Your task to perform on an android device: toggle wifi Image 0: 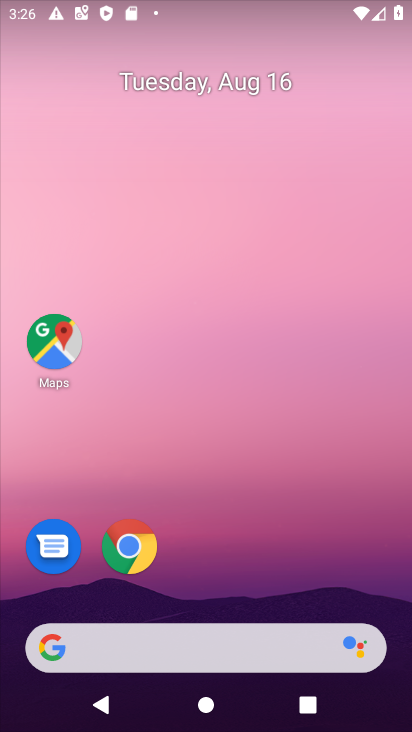
Step 0: press home button
Your task to perform on an android device: toggle wifi Image 1: 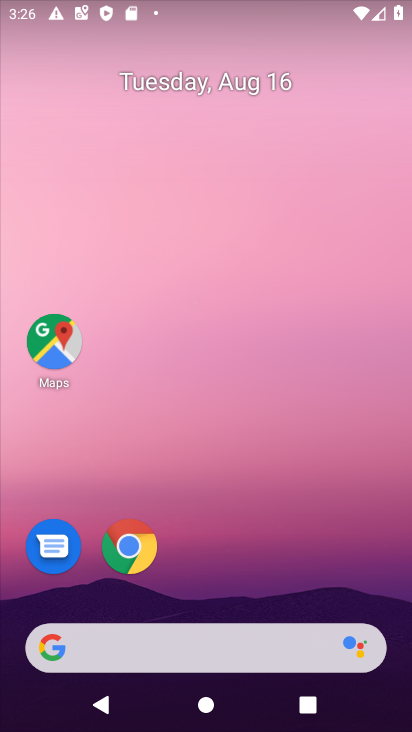
Step 1: drag from (313, 586) to (320, 115)
Your task to perform on an android device: toggle wifi Image 2: 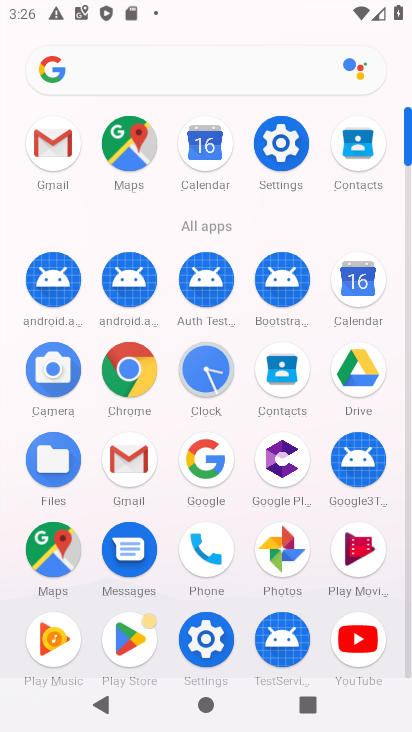
Step 2: click (275, 140)
Your task to perform on an android device: toggle wifi Image 3: 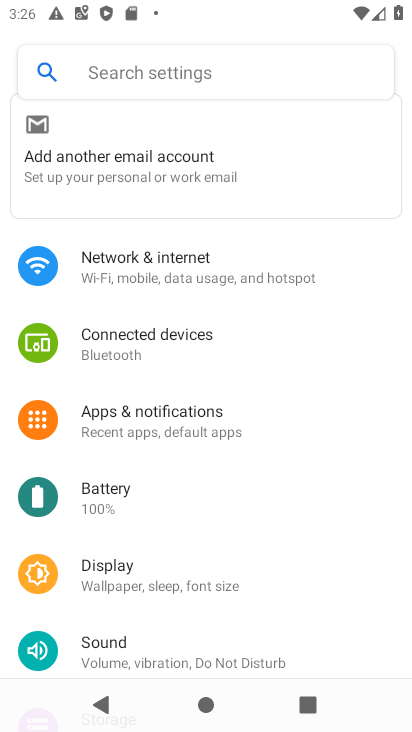
Step 3: drag from (326, 444) to (324, 329)
Your task to perform on an android device: toggle wifi Image 4: 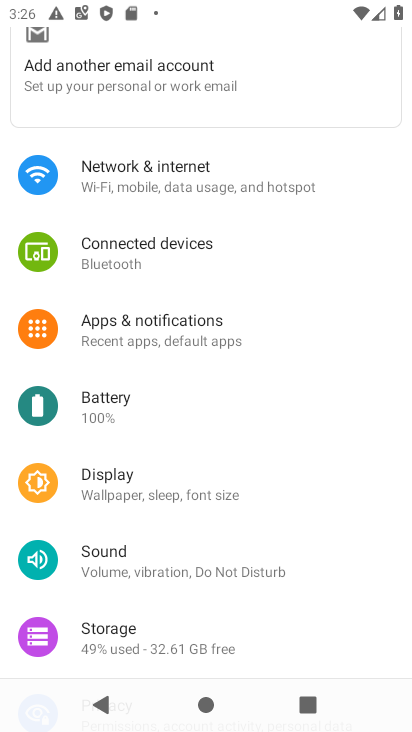
Step 4: drag from (312, 435) to (307, 318)
Your task to perform on an android device: toggle wifi Image 5: 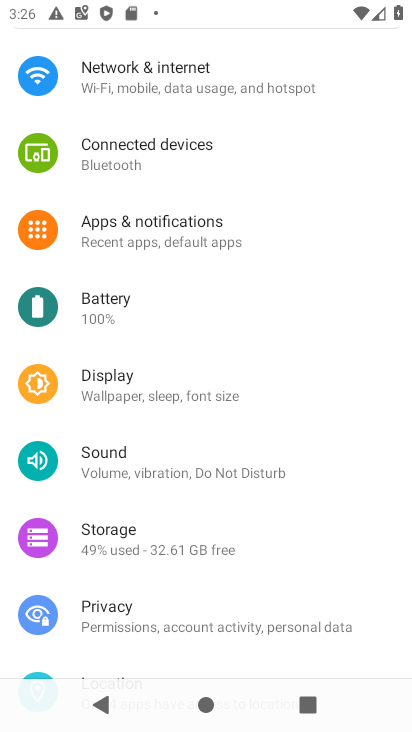
Step 5: click (239, 91)
Your task to perform on an android device: toggle wifi Image 6: 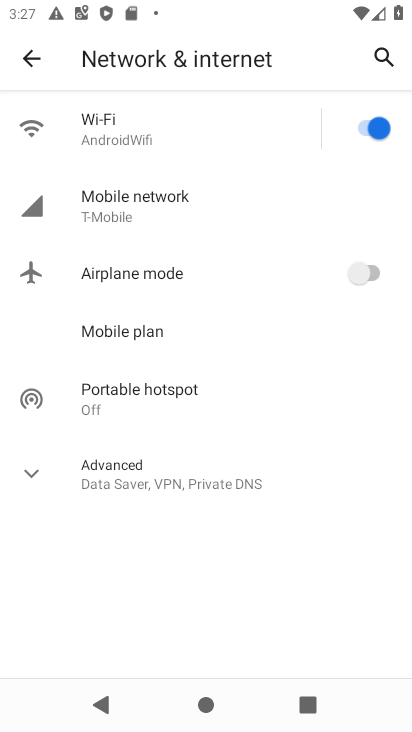
Step 6: click (361, 132)
Your task to perform on an android device: toggle wifi Image 7: 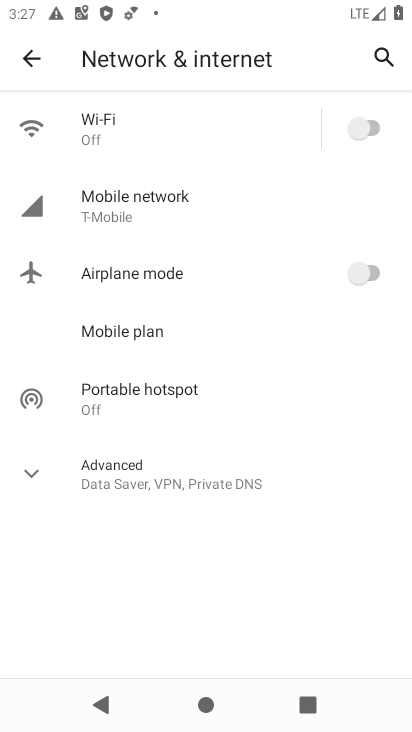
Step 7: task complete